Your task to perform on an android device: open chrome privacy settings Image 0: 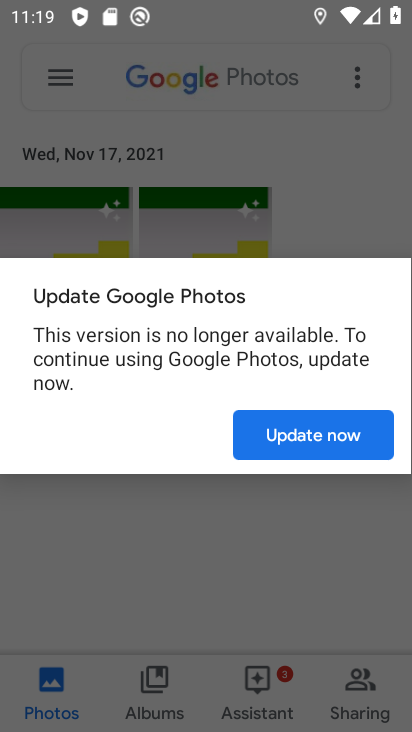
Step 0: press home button
Your task to perform on an android device: open chrome privacy settings Image 1: 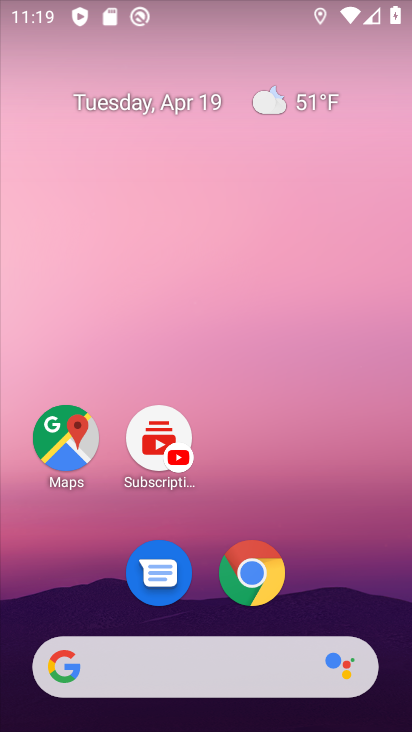
Step 1: click (257, 569)
Your task to perform on an android device: open chrome privacy settings Image 2: 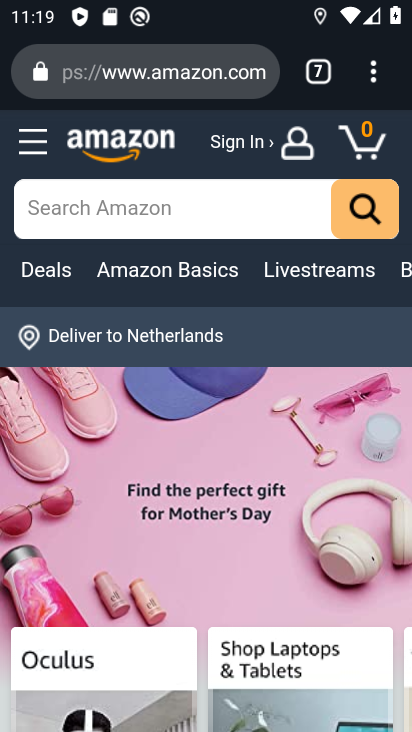
Step 2: drag from (370, 69) to (116, 562)
Your task to perform on an android device: open chrome privacy settings Image 3: 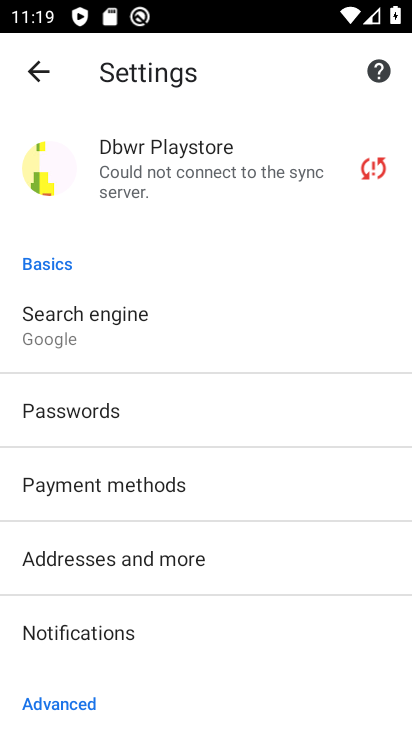
Step 3: drag from (182, 686) to (202, 339)
Your task to perform on an android device: open chrome privacy settings Image 4: 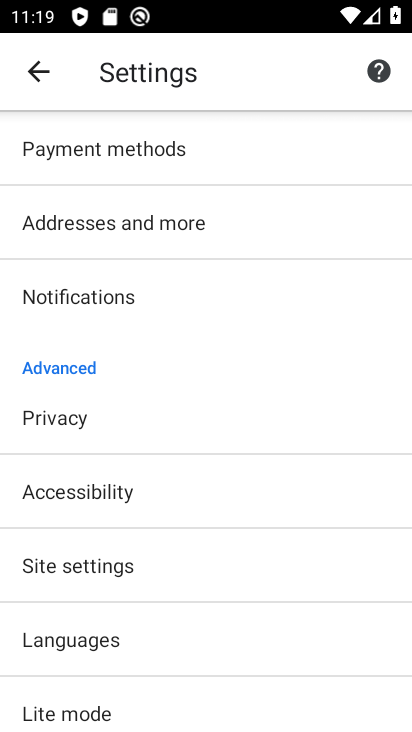
Step 4: click (50, 415)
Your task to perform on an android device: open chrome privacy settings Image 5: 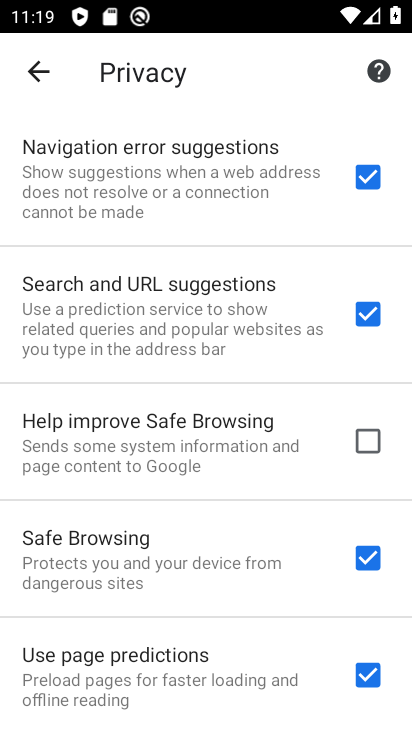
Step 5: task complete